Your task to perform on an android device: Open Google Chrome and open the bookmarks view Image 0: 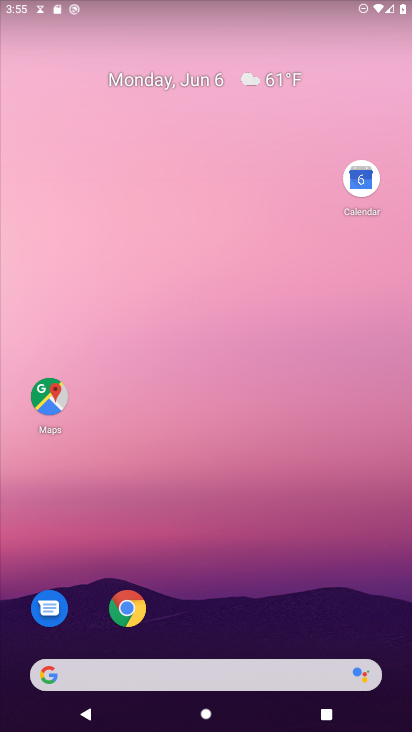
Step 0: click (136, 604)
Your task to perform on an android device: Open Google Chrome and open the bookmarks view Image 1: 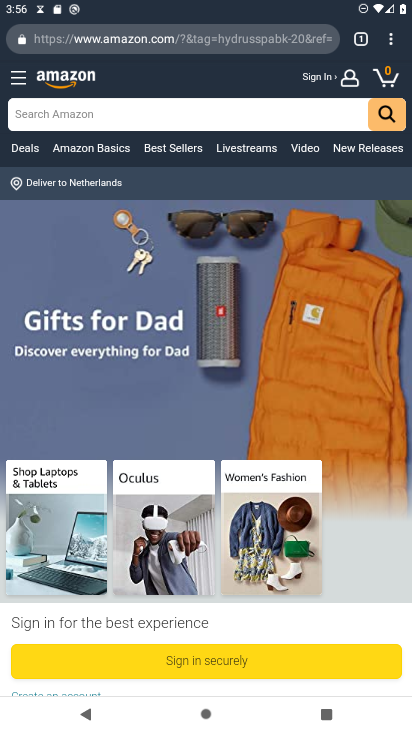
Step 1: click (388, 35)
Your task to perform on an android device: Open Google Chrome and open the bookmarks view Image 2: 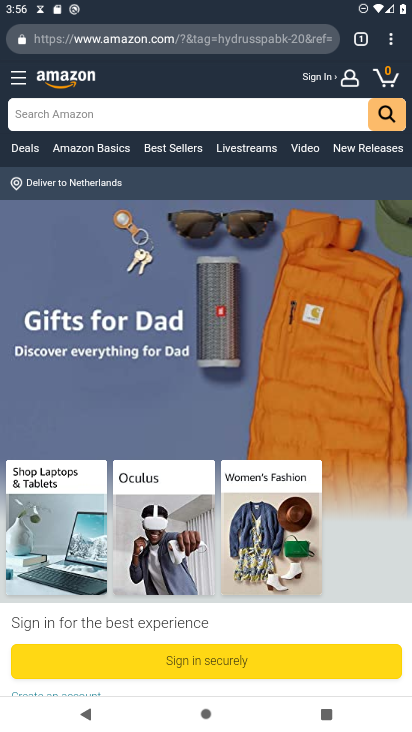
Step 2: click (400, 43)
Your task to perform on an android device: Open Google Chrome and open the bookmarks view Image 3: 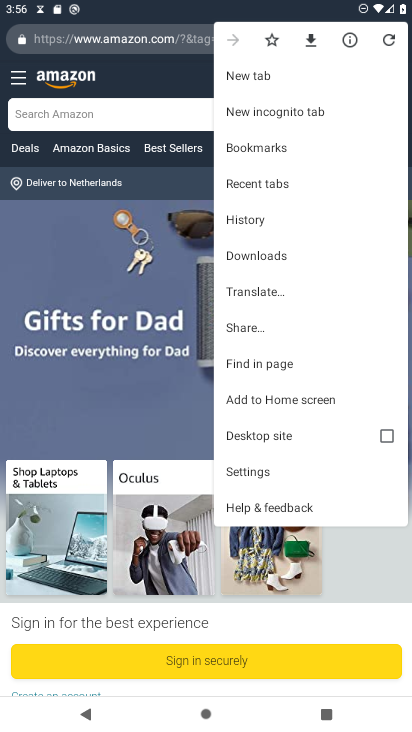
Step 3: click (262, 143)
Your task to perform on an android device: Open Google Chrome and open the bookmarks view Image 4: 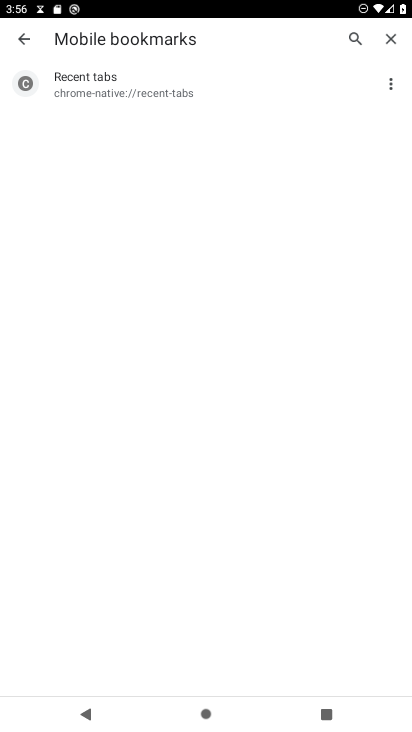
Step 4: task complete